Your task to perform on an android device: turn on location history Image 0: 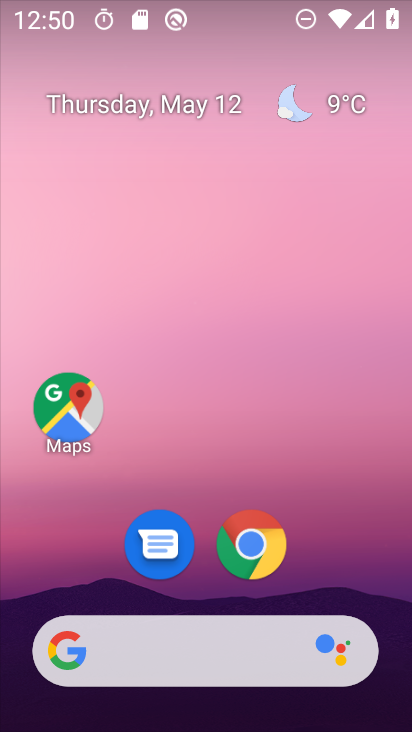
Step 0: drag from (206, 729) to (189, 80)
Your task to perform on an android device: turn on location history Image 1: 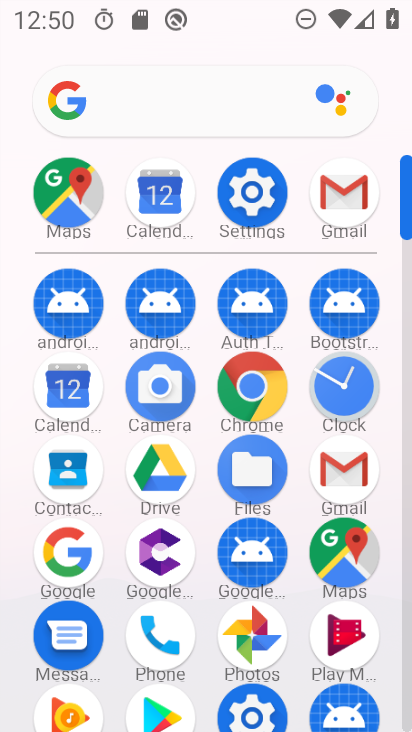
Step 1: click (254, 193)
Your task to perform on an android device: turn on location history Image 2: 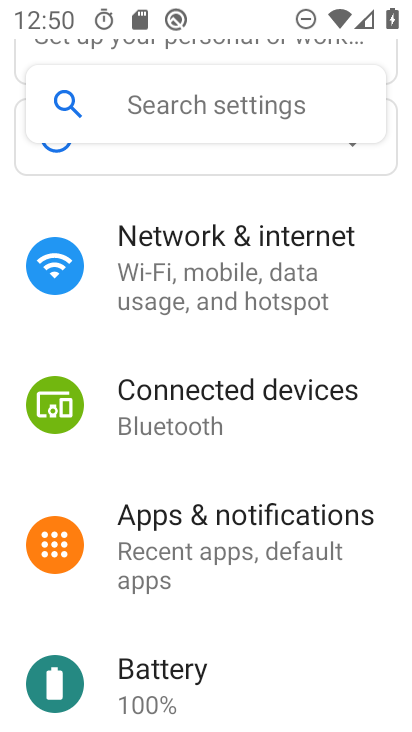
Step 2: drag from (209, 661) to (213, 342)
Your task to perform on an android device: turn on location history Image 3: 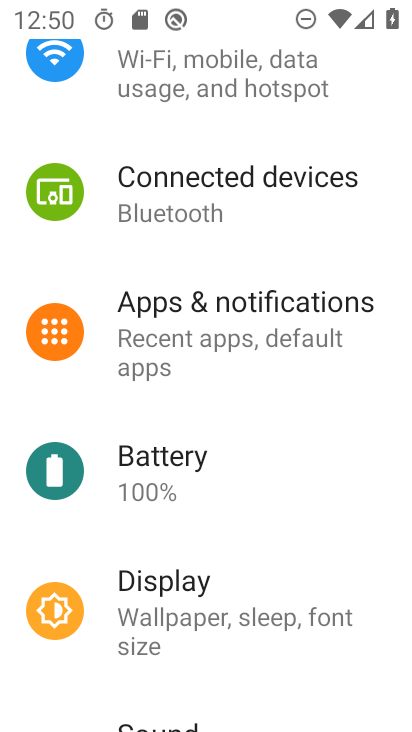
Step 3: drag from (187, 687) to (188, 313)
Your task to perform on an android device: turn on location history Image 4: 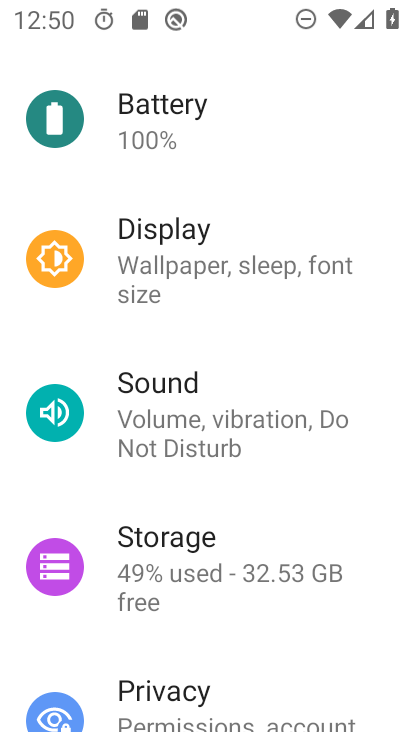
Step 4: drag from (180, 683) to (180, 274)
Your task to perform on an android device: turn on location history Image 5: 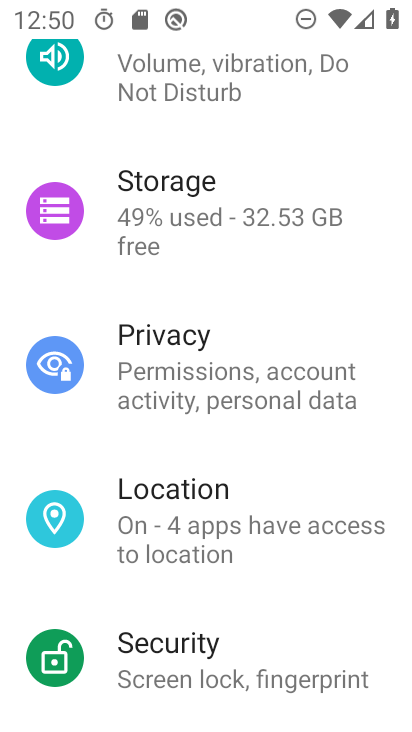
Step 5: click (182, 527)
Your task to perform on an android device: turn on location history Image 6: 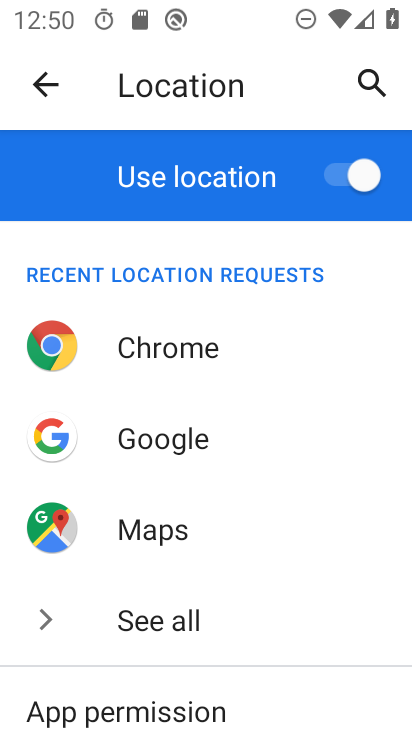
Step 6: drag from (165, 690) to (202, 357)
Your task to perform on an android device: turn on location history Image 7: 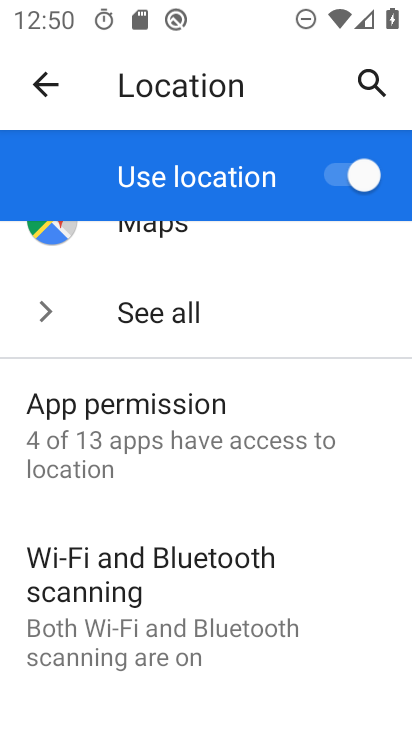
Step 7: drag from (168, 692) to (198, 372)
Your task to perform on an android device: turn on location history Image 8: 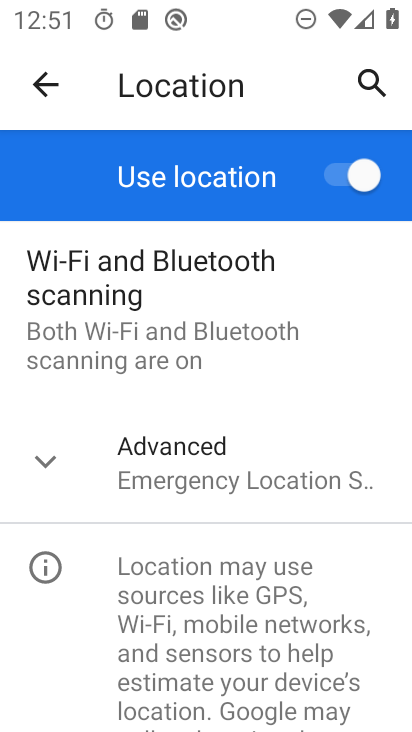
Step 8: click (178, 470)
Your task to perform on an android device: turn on location history Image 9: 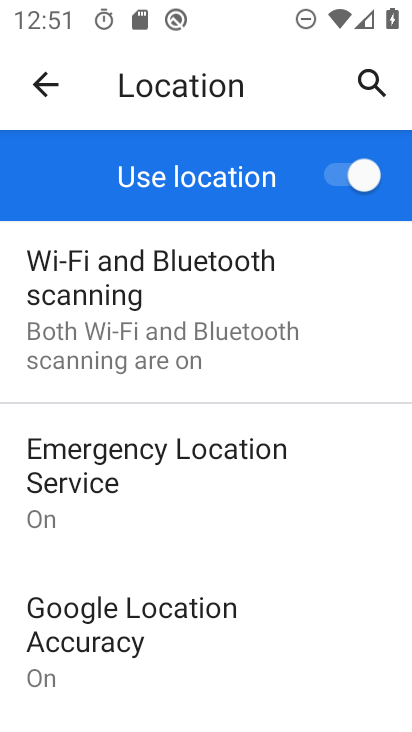
Step 9: drag from (213, 694) to (222, 424)
Your task to perform on an android device: turn on location history Image 10: 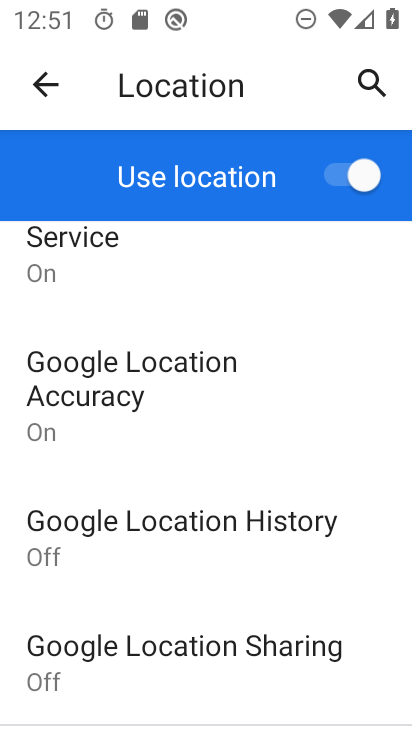
Step 10: click (190, 522)
Your task to perform on an android device: turn on location history Image 11: 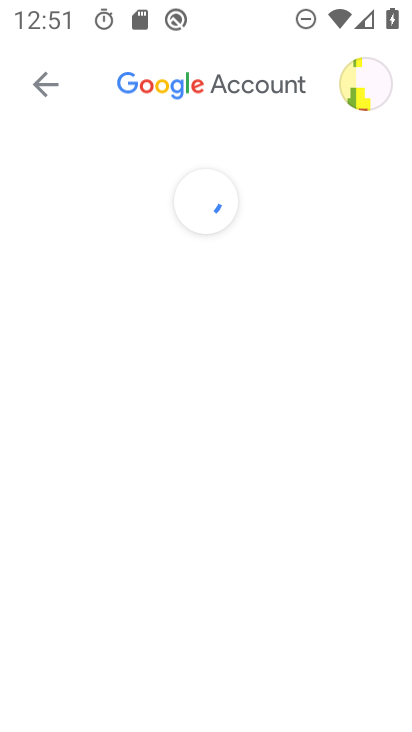
Step 11: task complete